Your task to perform on an android device: Do I have any events this weekend? Image 0: 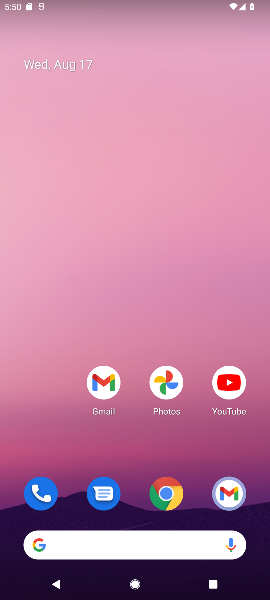
Step 0: press home button
Your task to perform on an android device: Do I have any events this weekend? Image 1: 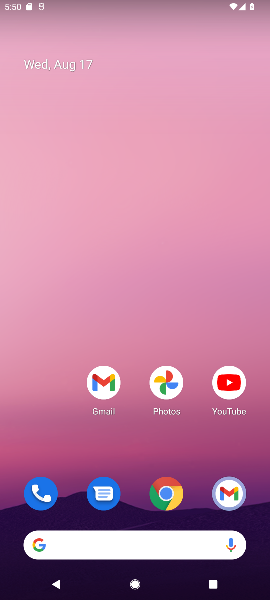
Step 1: drag from (131, 520) to (236, 19)
Your task to perform on an android device: Do I have any events this weekend? Image 2: 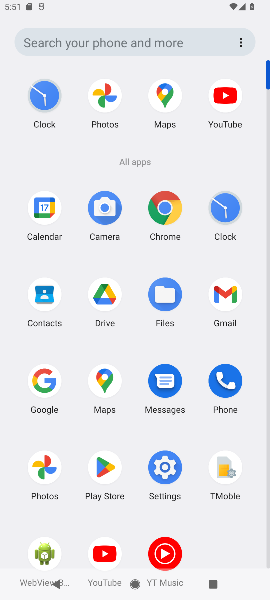
Step 2: click (45, 208)
Your task to perform on an android device: Do I have any events this weekend? Image 3: 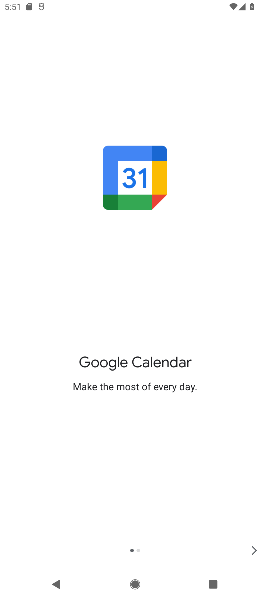
Step 3: click (248, 544)
Your task to perform on an android device: Do I have any events this weekend? Image 4: 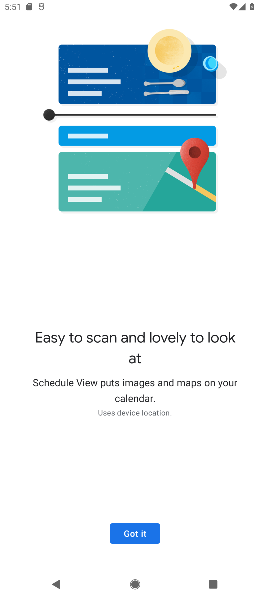
Step 4: click (153, 535)
Your task to perform on an android device: Do I have any events this weekend? Image 5: 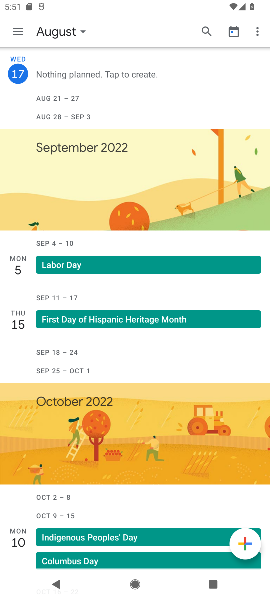
Step 5: click (17, 27)
Your task to perform on an android device: Do I have any events this weekend? Image 6: 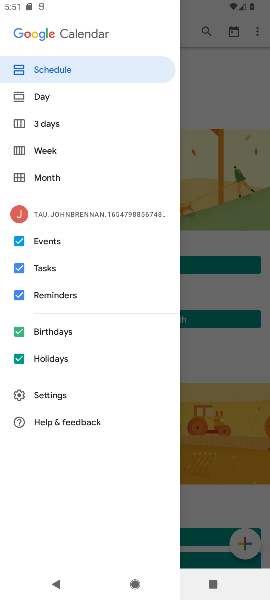
Step 6: click (54, 157)
Your task to perform on an android device: Do I have any events this weekend? Image 7: 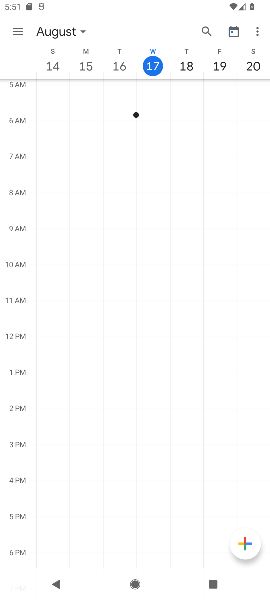
Step 7: task complete